Your task to perform on an android device: install app "WhatsApp Messenger" Image 0: 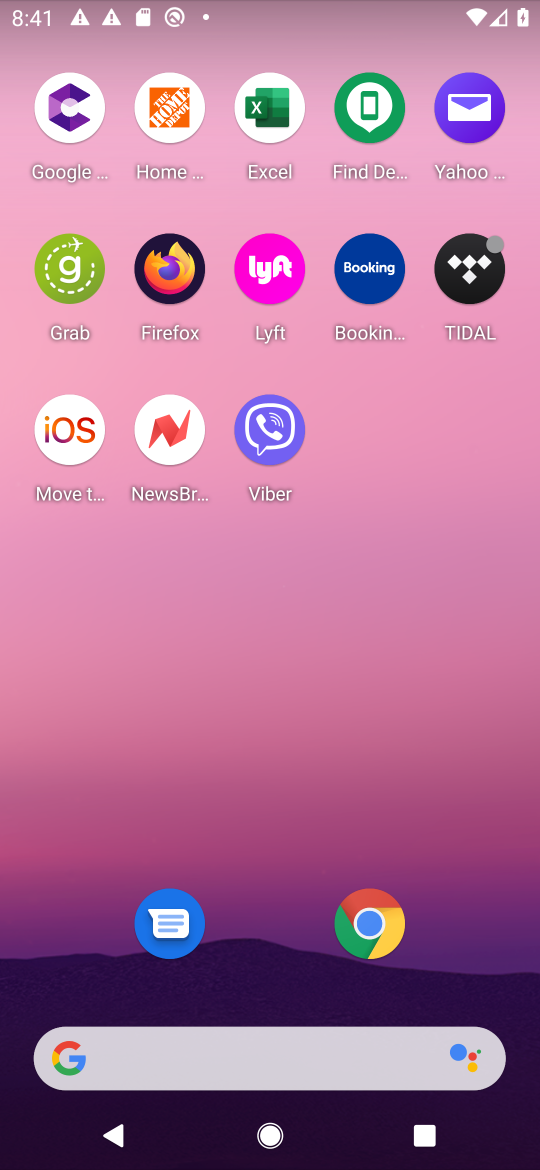
Step 0: press home button
Your task to perform on an android device: install app "WhatsApp Messenger" Image 1: 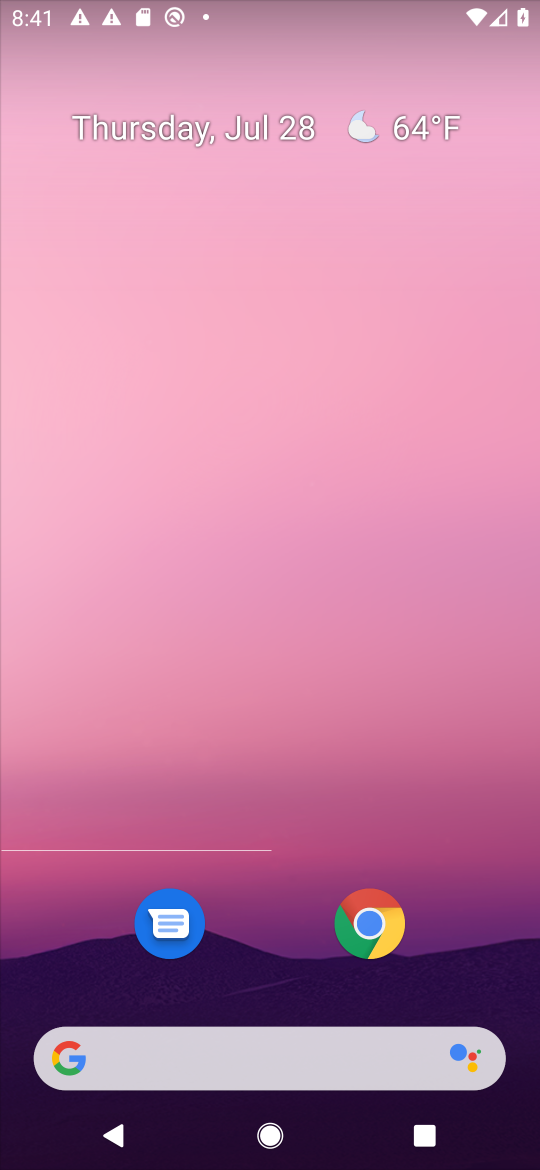
Step 1: drag from (410, 709) to (473, 198)
Your task to perform on an android device: install app "WhatsApp Messenger" Image 2: 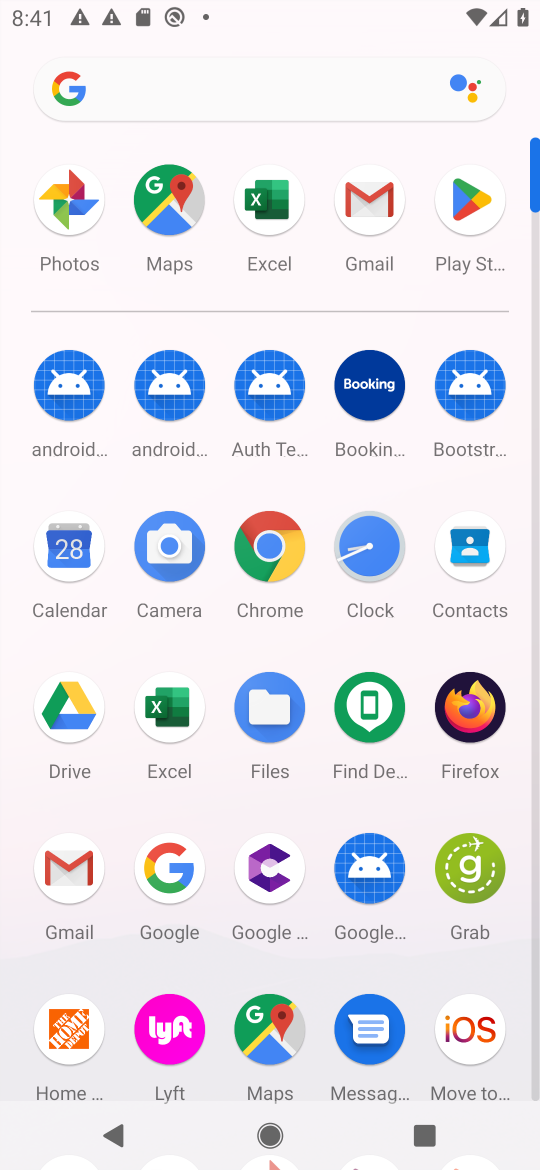
Step 2: click (481, 190)
Your task to perform on an android device: install app "WhatsApp Messenger" Image 3: 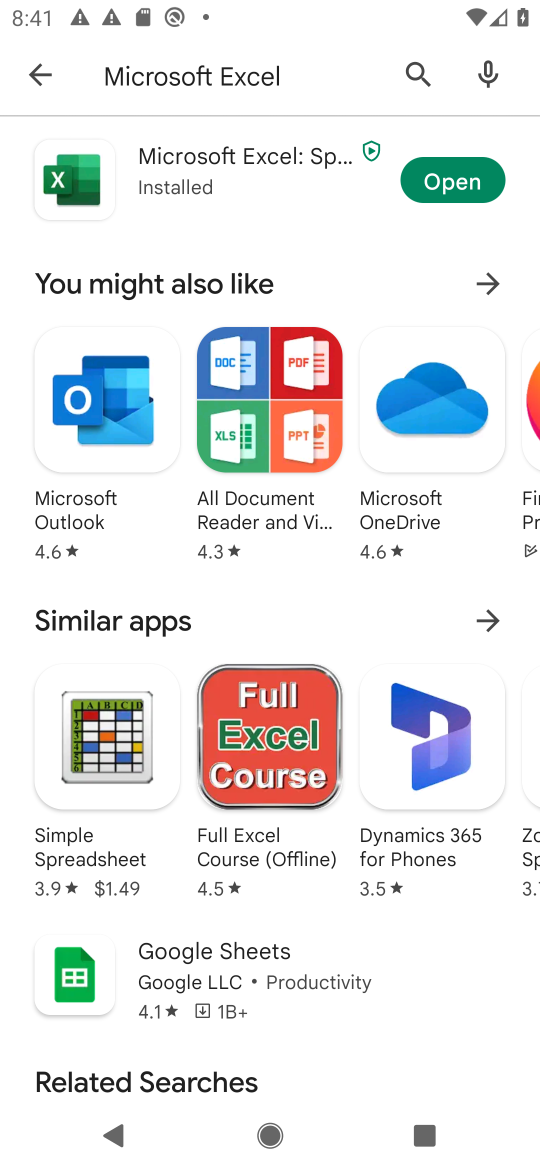
Step 3: click (338, 87)
Your task to perform on an android device: install app "WhatsApp Messenger" Image 4: 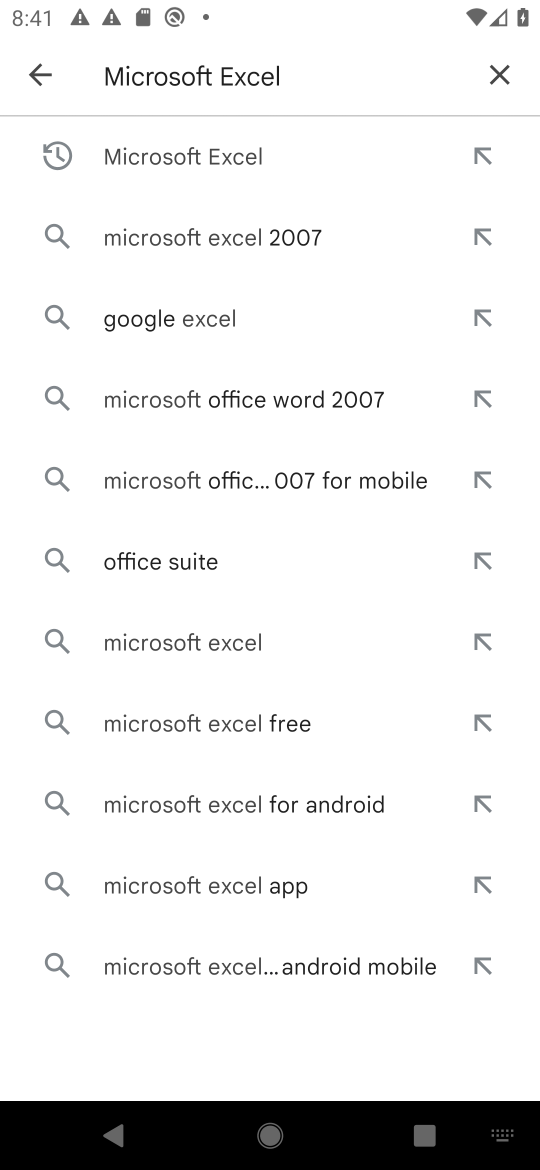
Step 4: click (489, 67)
Your task to perform on an android device: install app "WhatsApp Messenger" Image 5: 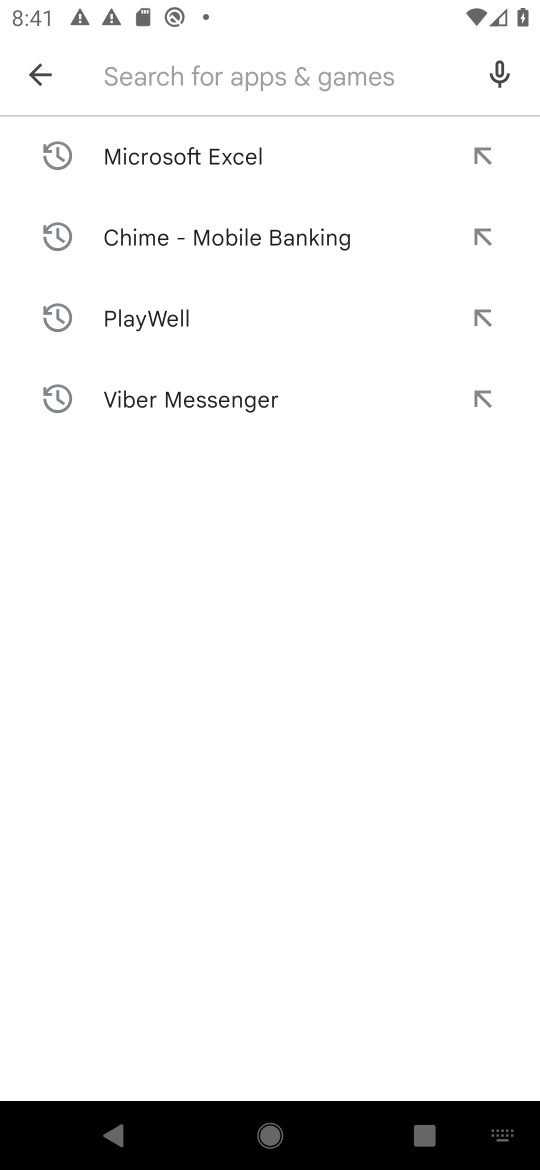
Step 5: type "WhatsApp Messenger"
Your task to perform on an android device: install app "WhatsApp Messenger" Image 6: 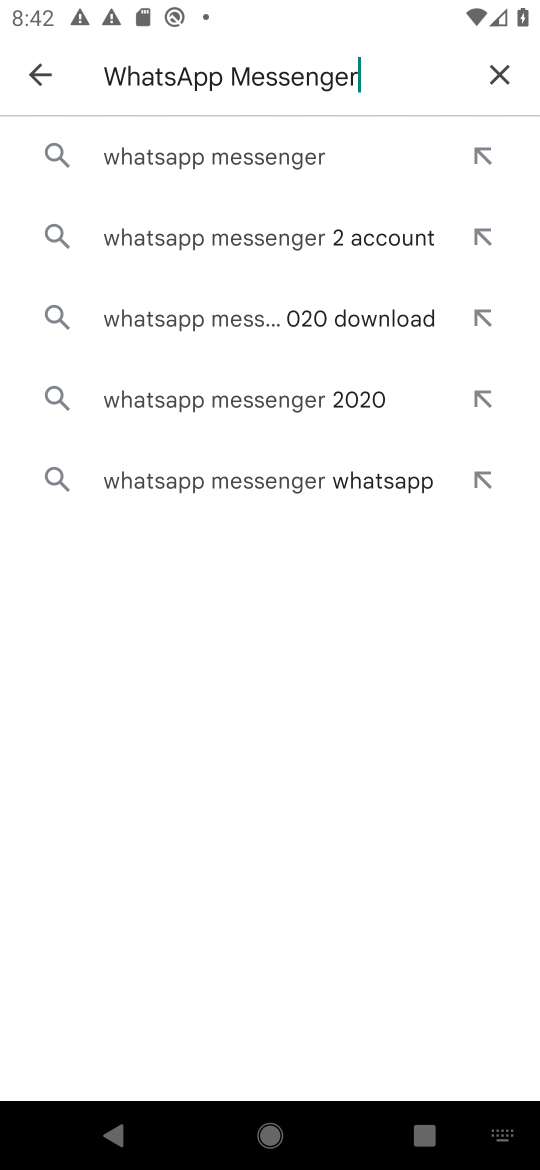
Step 6: press enter
Your task to perform on an android device: install app "WhatsApp Messenger" Image 7: 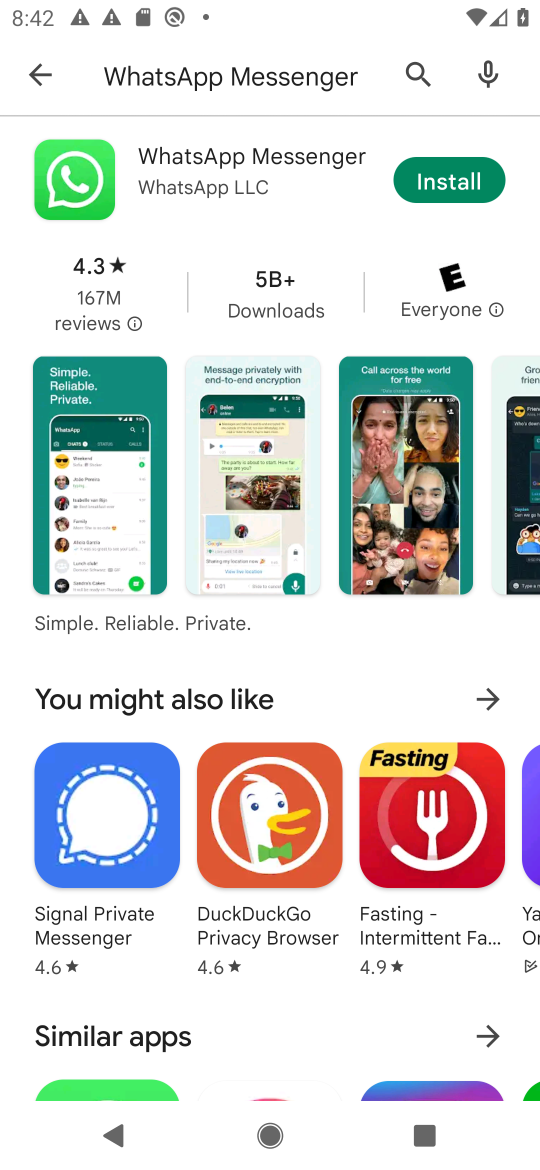
Step 7: click (470, 178)
Your task to perform on an android device: install app "WhatsApp Messenger" Image 8: 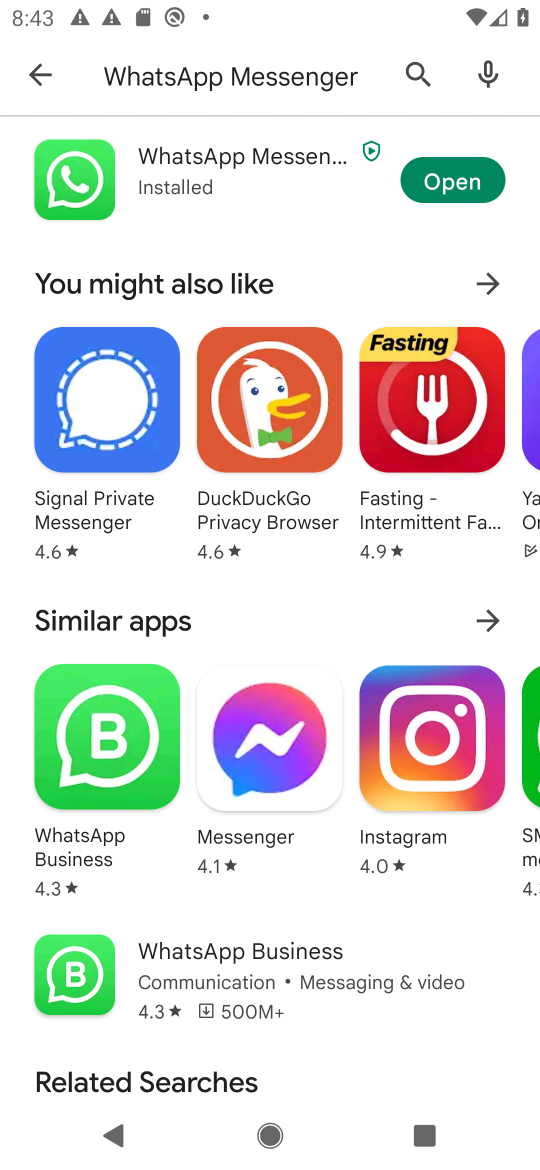
Step 8: task complete